Your task to perform on an android device: read, delete, or share a saved page in the chrome app Image 0: 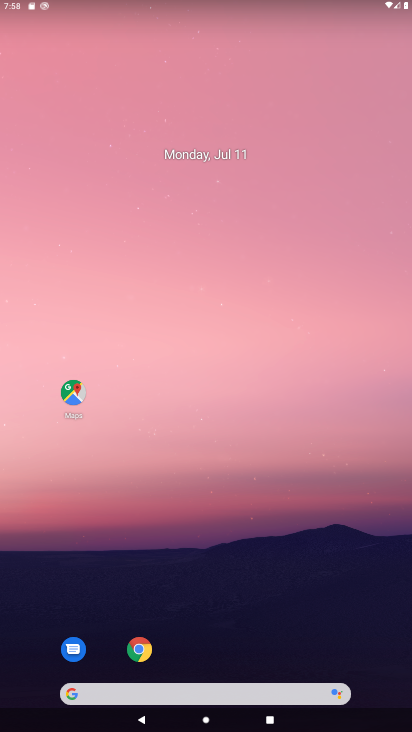
Step 0: click (136, 645)
Your task to perform on an android device: read, delete, or share a saved page in the chrome app Image 1: 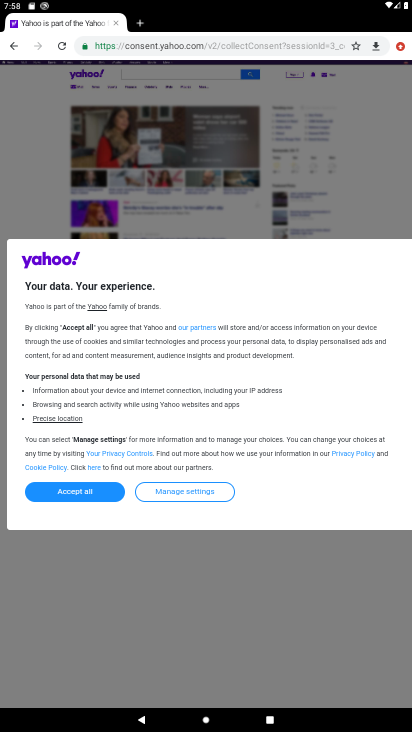
Step 1: click (404, 47)
Your task to perform on an android device: read, delete, or share a saved page in the chrome app Image 2: 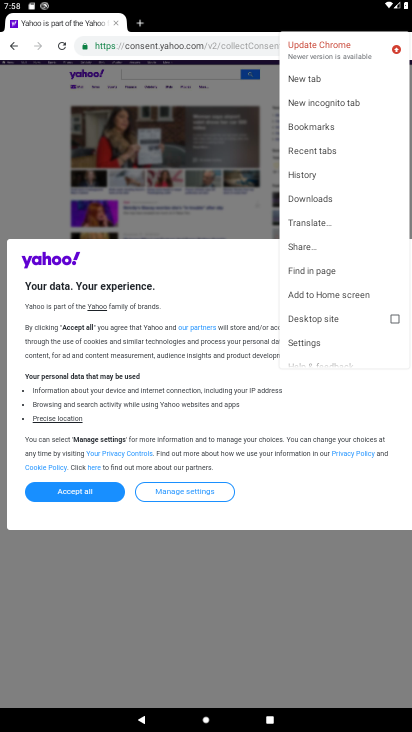
Step 2: click (313, 203)
Your task to perform on an android device: read, delete, or share a saved page in the chrome app Image 3: 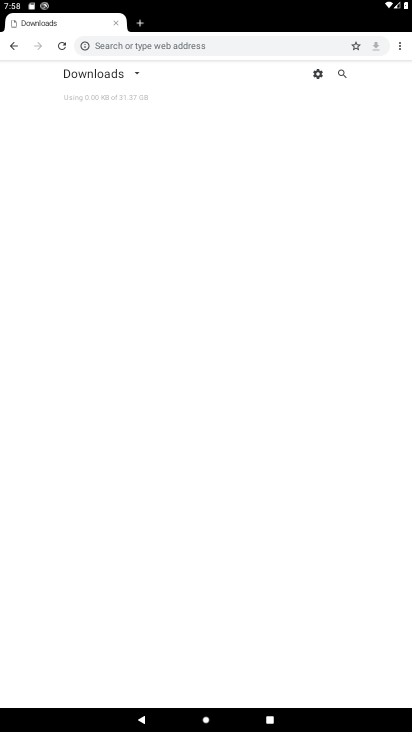
Step 3: click (131, 79)
Your task to perform on an android device: read, delete, or share a saved page in the chrome app Image 4: 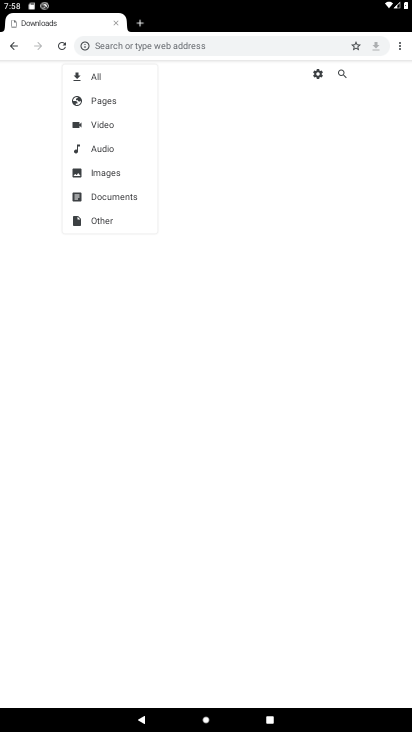
Step 4: click (105, 103)
Your task to perform on an android device: read, delete, or share a saved page in the chrome app Image 5: 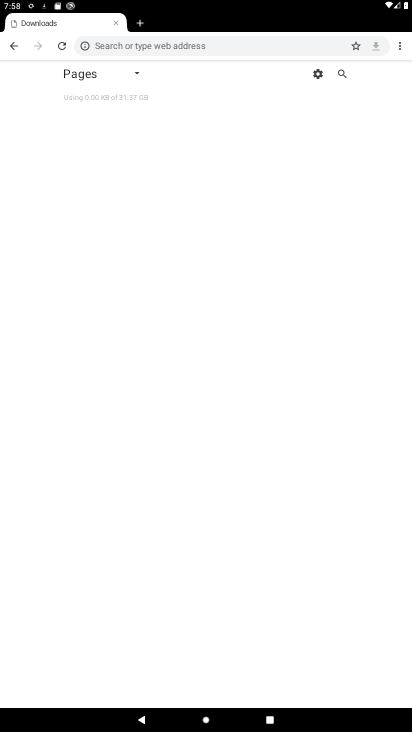
Step 5: task complete